Your task to perform on an android device: Open calendar and show me the fourth week of next month Image 0: 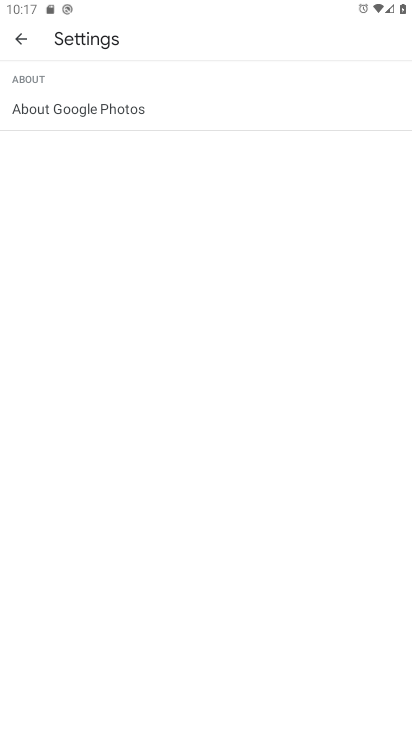
Step 0: press home button
Your task to perform on an android device: Open calendar and show me the fourth week of next month Image 1: 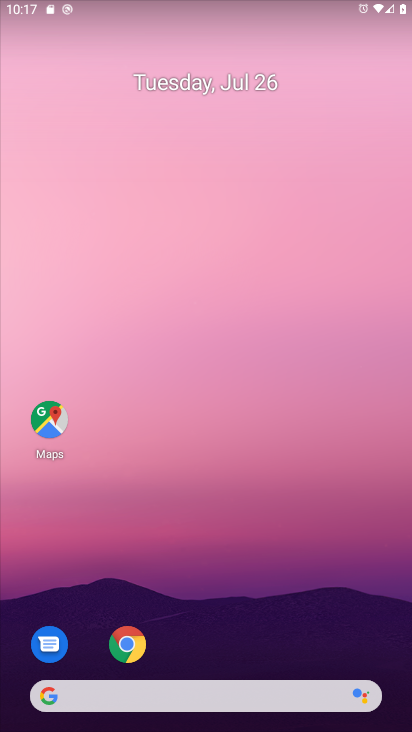
Step 1: drag from (265, 598) to (252, 246)
Your task to perform on an android device: Open calendar and show me the fourth week of next month Image 2: 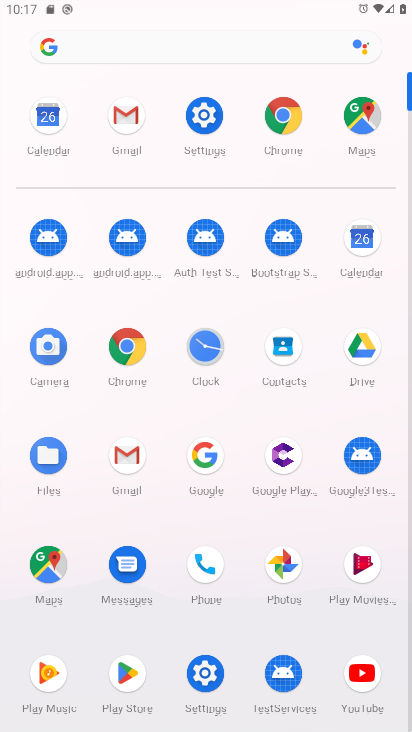
Step 2: click (357, 256)
Your task to perform on an android device: Open calendar and show me the fourth week of next month Image 3: 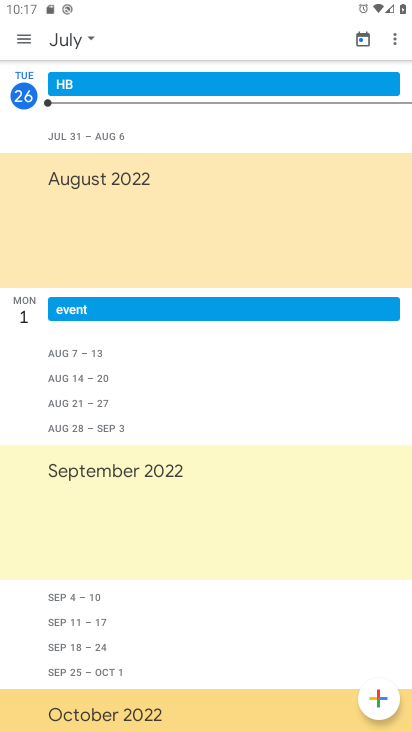
Step 3: click (27, 47)
Your task to perform on an android device: Open calendar and show me the fourth week of next month Image 4: 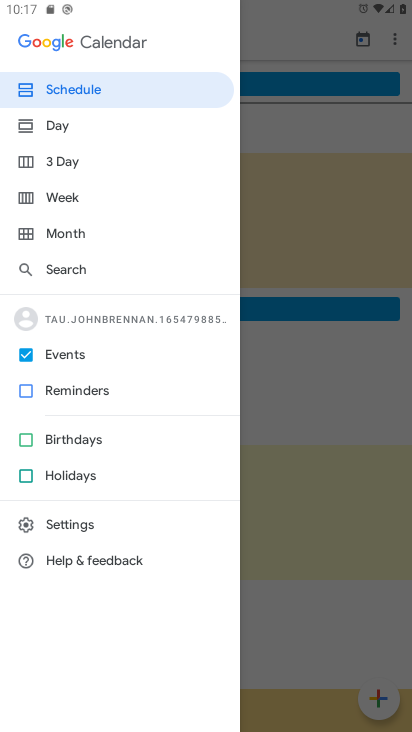
Step 4: click (75, 194)
Your task to perform on an android device: Open calendar and show me the fourth week of next month Image 5: 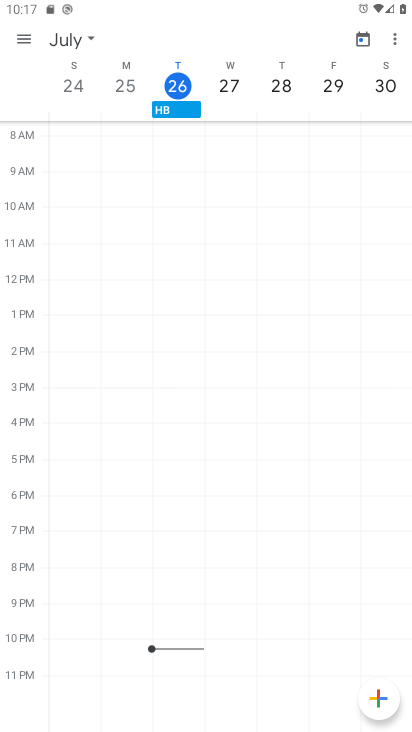
Step 5: task complete